Your task to perform on an android device: Open Google Chrome and click the shortcut for Amazon.com Image 0: 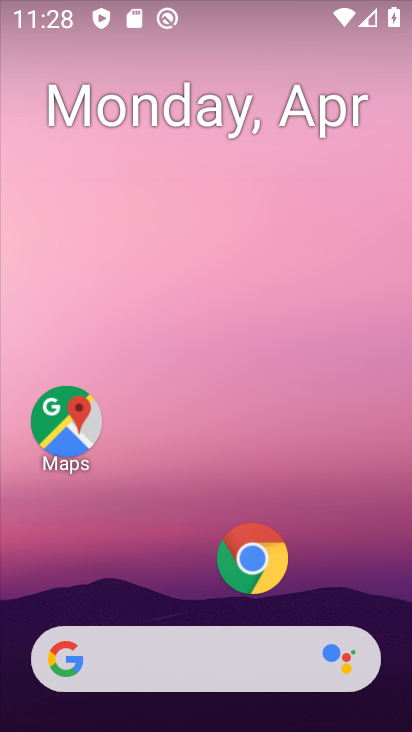
Step 0: drag from (165, 613) to (250, 53)
Your task to perform on an android device: Open Google Chrome and click the shortcut for Amazon.com Image 1: 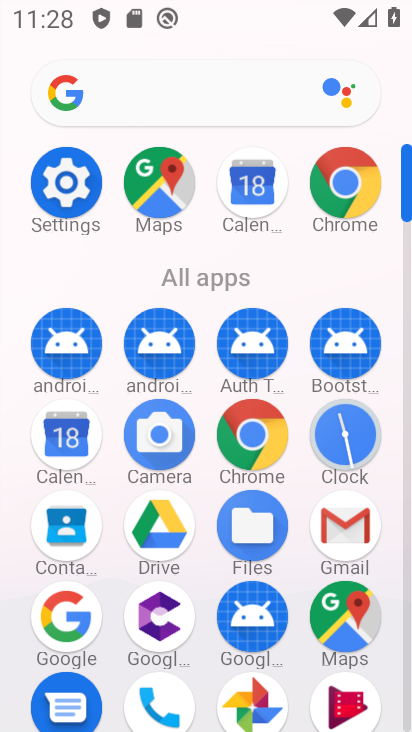
Step 1: click (351, 179)
Your task to perform on an android device: Open Google Chrome and click the shortcut for Amazon.com Image 2: 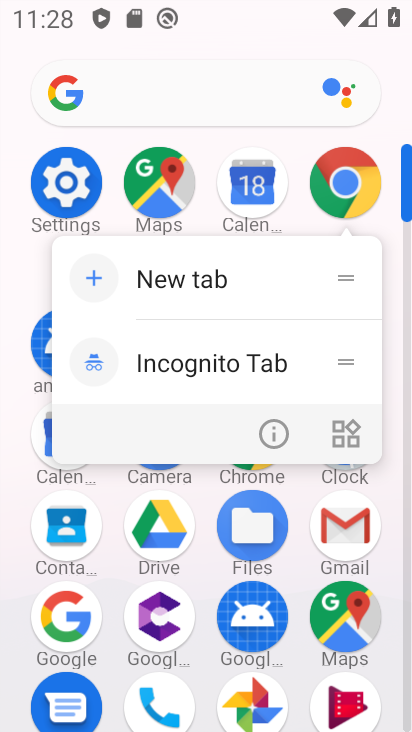
Step 2: click (277, 428)
Your task to perform on an android device: Open Google Chrome and click the shortcut for Amazon.com Image 3: 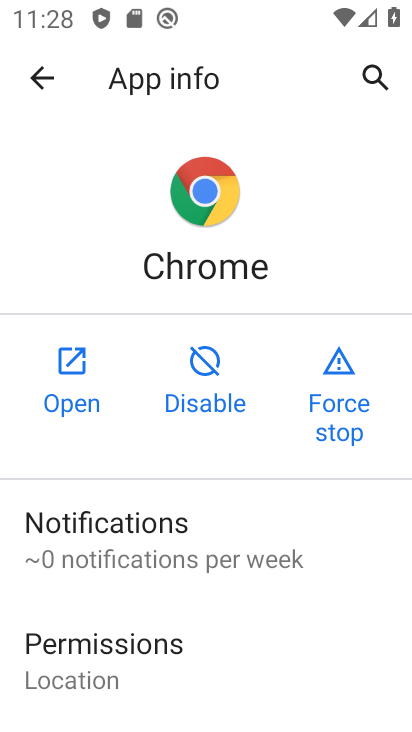
Step 3: click (79, 384)
Your task to perform on an android device: Open Google Chrome and click the shortcut for Amazon.com Image 4: 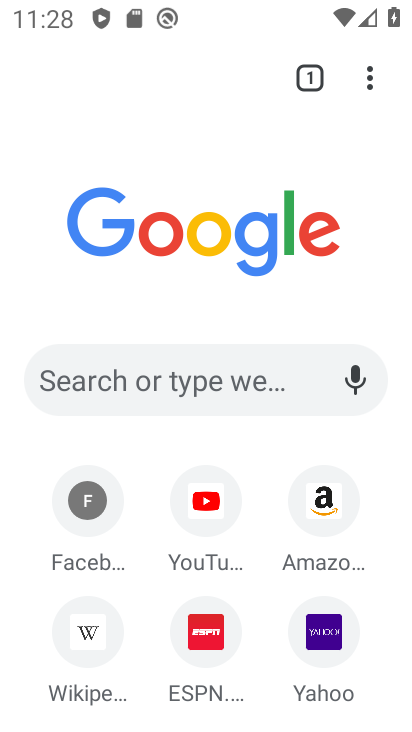
Step 4: click (115, 374)
Your task to perform on an android device: Open Google Chrome and click the shortcut for Amazon.com Image 5: 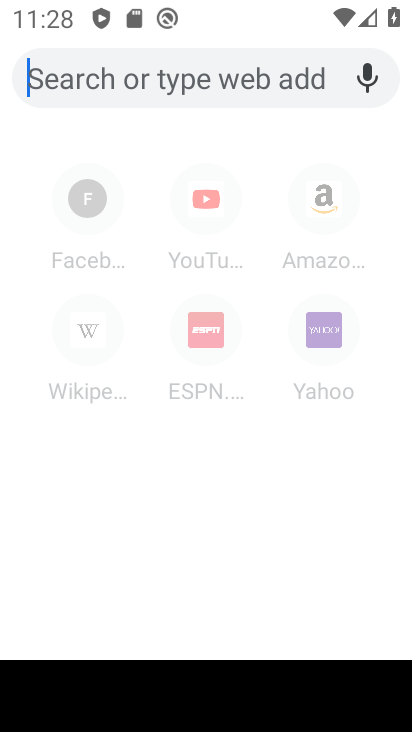
Step 5: click (121, 81)
Your task to perform on an android device: Open Google Chrome and click the shortcut for Amazon.com Image 6: 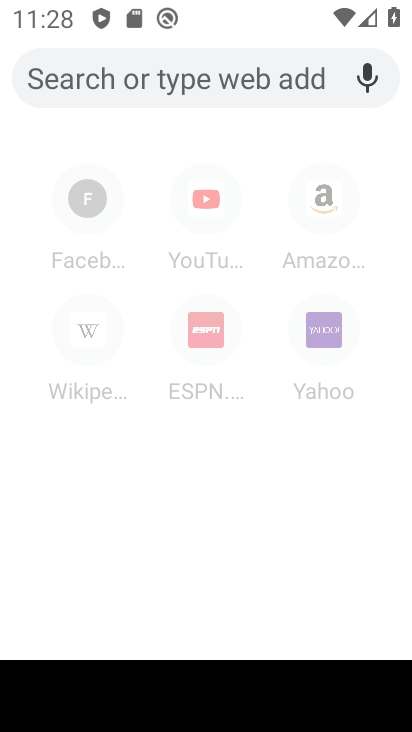
Step 6: type "amazon.com"
Your task to perform on an android device: Open Google Chrome and click the shortcut for Amazon.com Image 7: 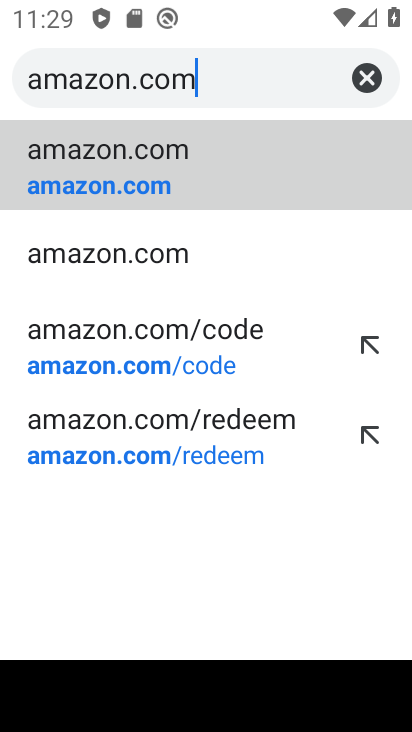
Step 7: click (169, 189)
Your task to perform on an android device: Open Google Chrome and click the shortcut for Amazon.com Image 8: 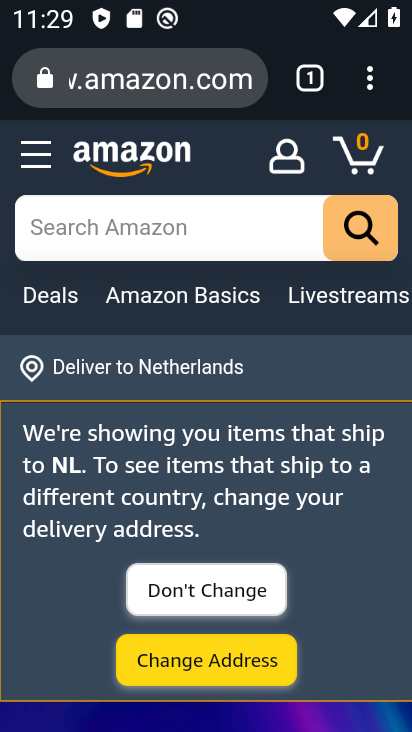
Step 8: task complete